Your task to perform on an android device: turn smart compose on in the gmail app Image 0: 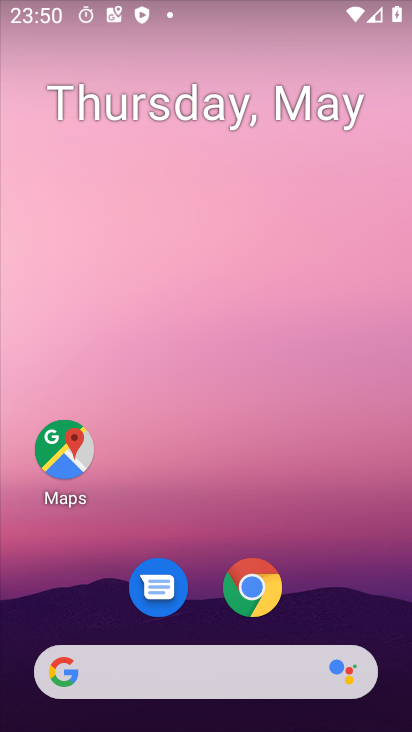
Step 0: drag from (324, 628) to (383, 30)
Your task to perform on an android device: turn smart compose on in the gmail app Image 1: 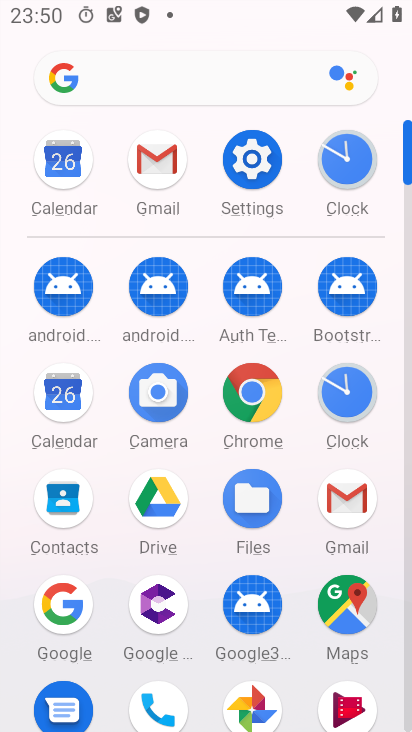
Step 1: click (161, 169)
Your task to perform on an android device: turn smart compose on in the gmail app Image 2: 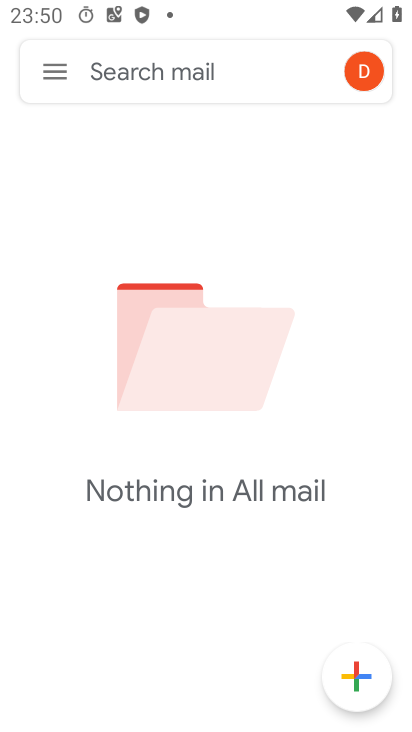
Step 2: click (49, 71)
Your task to perform on an android device: turn smart compose on in the gmail app Image 3: 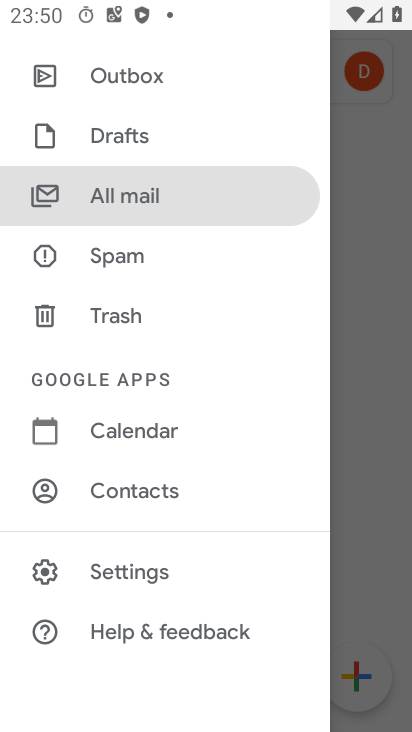
Step 3: click (147, 580)
Your task to perform on an android device: turn smart compose on in the gmail app Image 4: 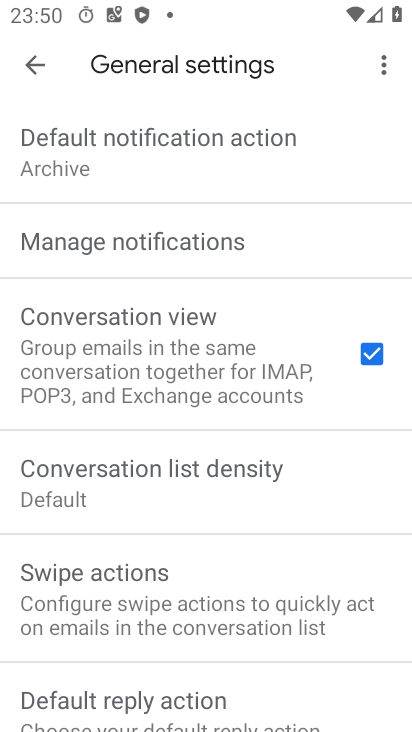
Step 4: click (36, 66)
Your task to perform on an android device: turn smart compose on in the gmail app Image 5: 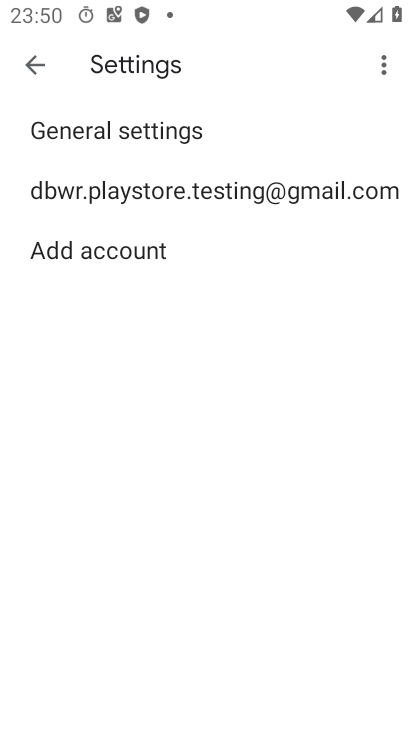
Step 5: click (69, 197)
Your task to perform on an android device: turn smart compose on in the gmail app Image 6: 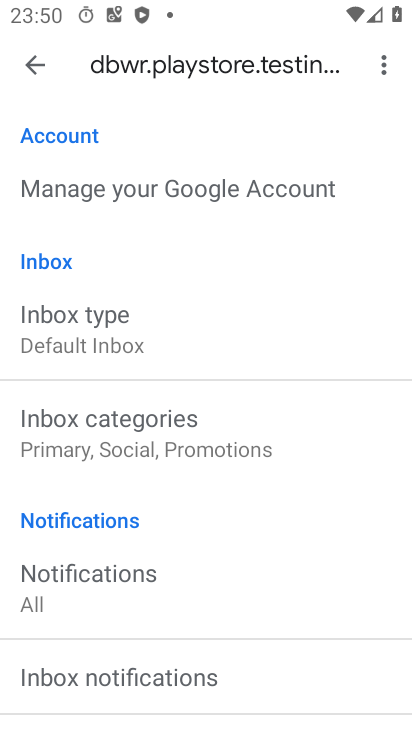
Step 6: task complete